Your task to perform on an android device: check android version Image 0: 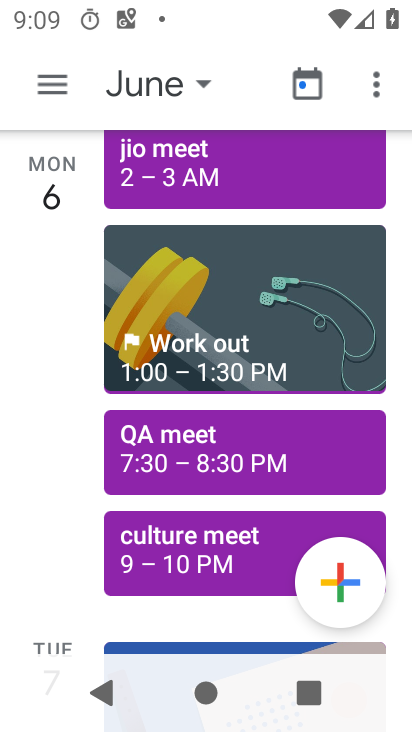
Step 0: drag from (223, 642) to (258, 86)
Your task to perform on an android device: check android version Image 1: 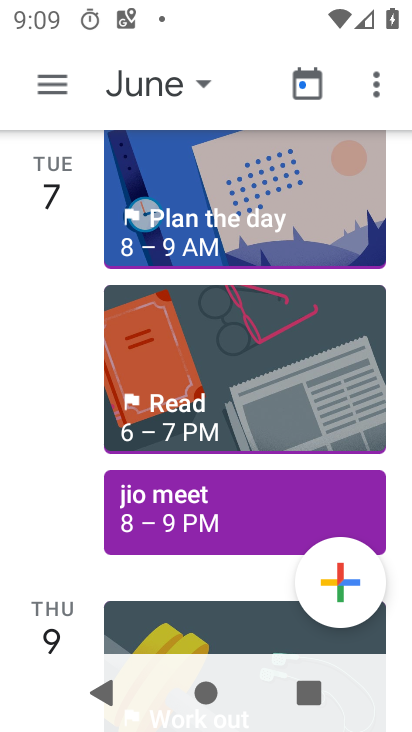
Step 1: press home button
Your task to perform on an android device: check android version Image 2: 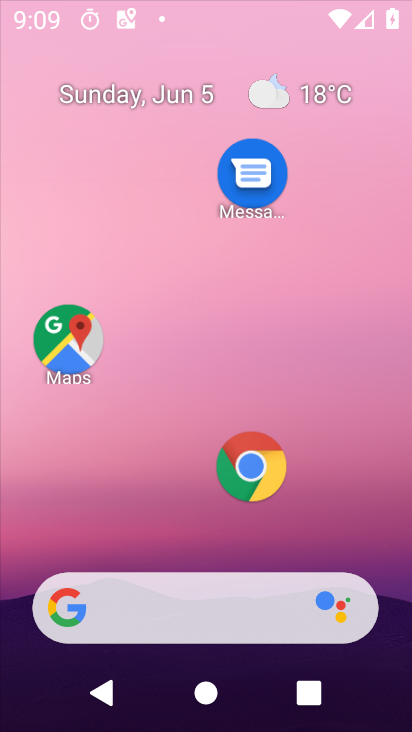
Step 2: drag from (227, 620) to (265, 233)
Your task to perform on an android device: check android version Image 3: 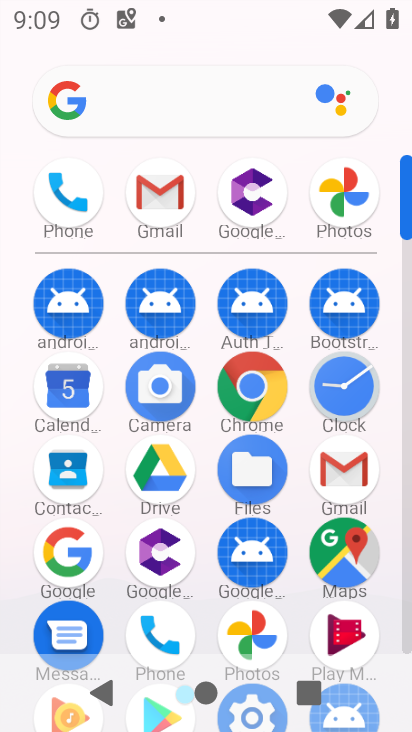
Step 3: drag from (205, 592) to (175, 80)
Your task to perform on an android device: check android version Image 4: 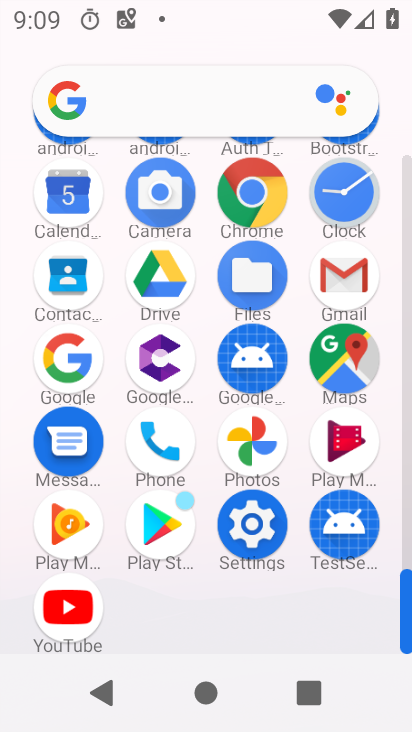
Step 4: click (241, 503)
Your task to perform on an android device: check android version Image 5: 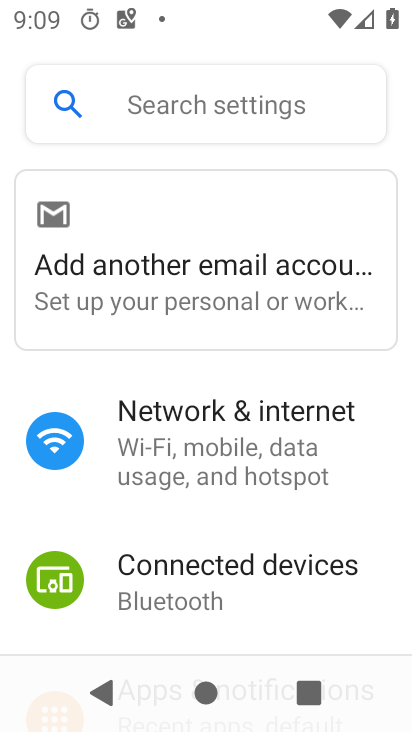
Step 5: drag from (218, 603) to (269, 51)
Your task to perform on an android device: check android version Image 6: 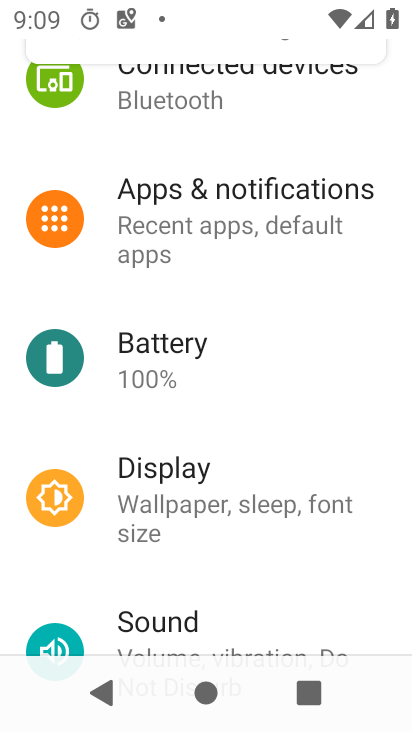
Step 6: drag from (197, 618) to (246, 3)
Your task to perform on an android device: check android version Image 7: 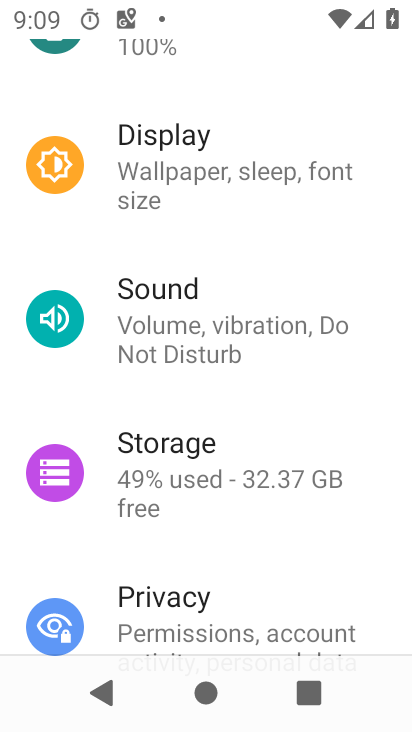
Step 7: drag from (219, 639) to (318, 58)
Your task to perform on an android device: check android version Image 8: 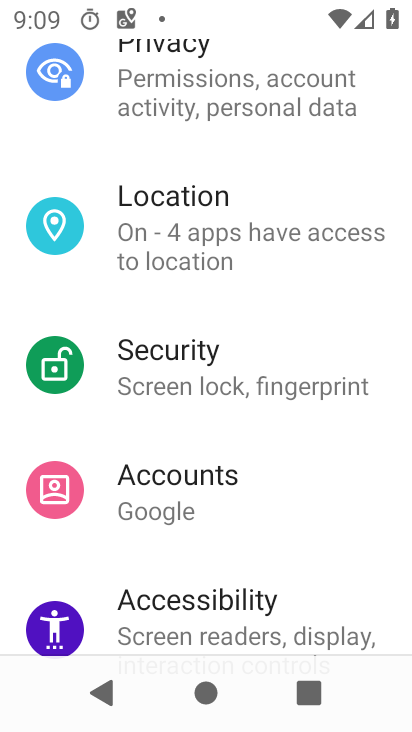
Step 8: drag from (232, 576) to (253, 59)
Your task to perform on an android device: check android version Image 9: 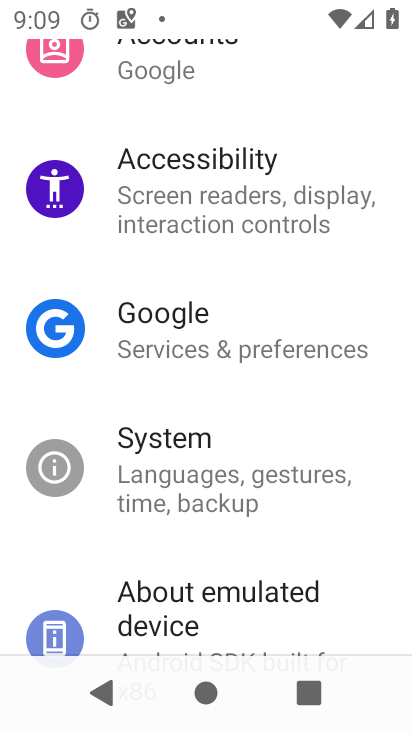
Step 9: drag from (214, 564) to (403, 103)
Your task to perform on an android device: check android version Image 10: 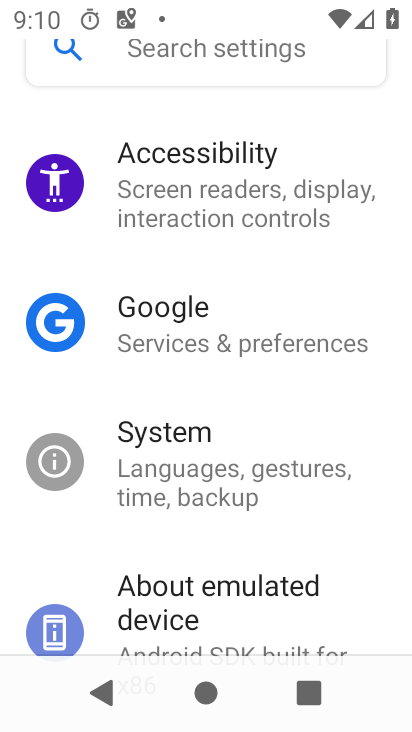
Step 10: click (177, 596)
Your task to perform on an android device: check android version Image 11: 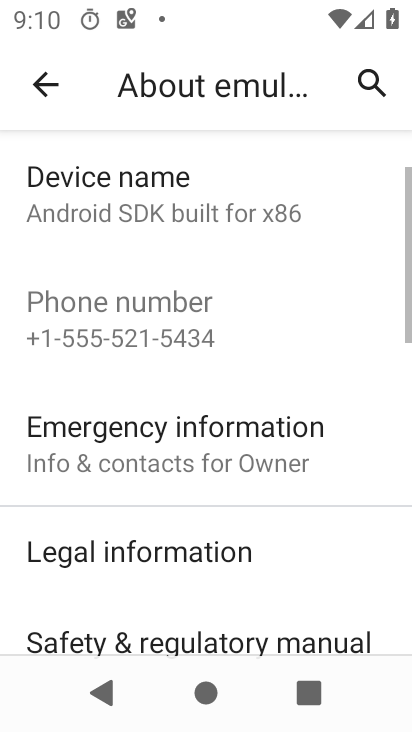
Step 11: drag from (200, 518) to (278, 4)
Your task to perform on an android device: check android version Image 12: 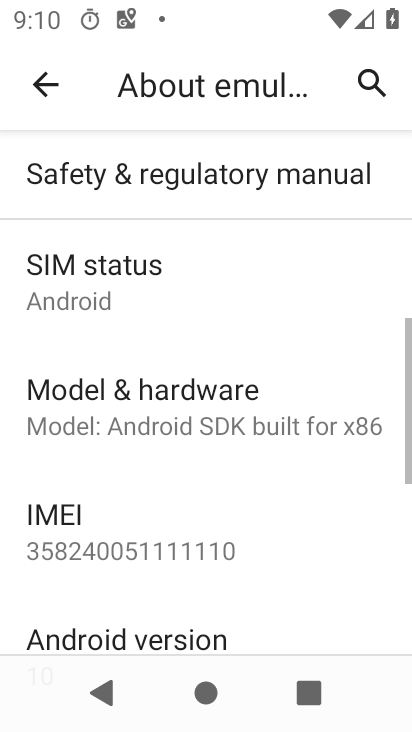
Step 12: drag from (132, 502) to (233, 159)
Your task to perform on an android device: check android version Image 13: 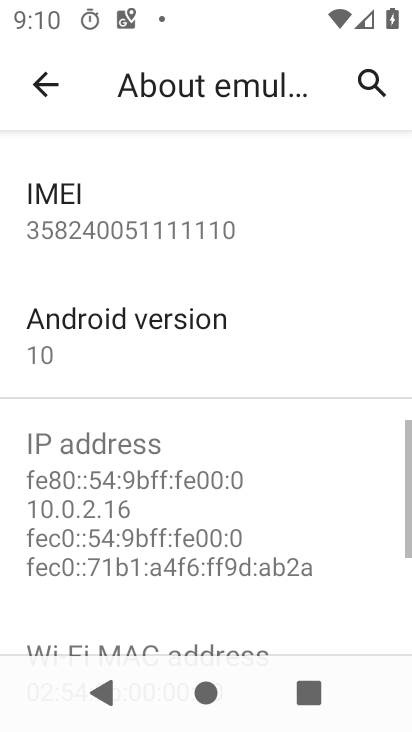
Step 13: click (131, 359)
Your task to perform on an android device: check android version Image 14: 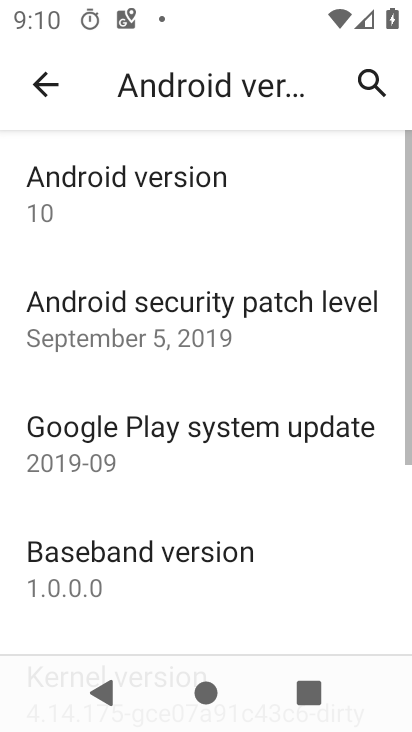
Step 14: task complete